Your task to perform on an android device: Open Google Maps and go to "Timeline" Image 0: 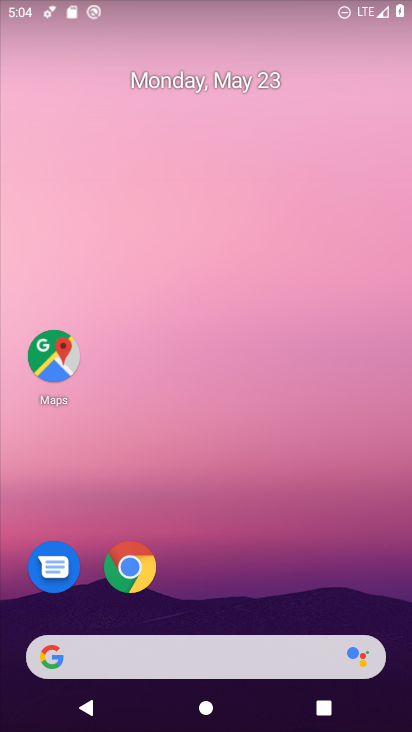
Step 0: click (51, 356)
Your task to perform on an android device: Open Google Maps and go to "Timeline" Image 1: 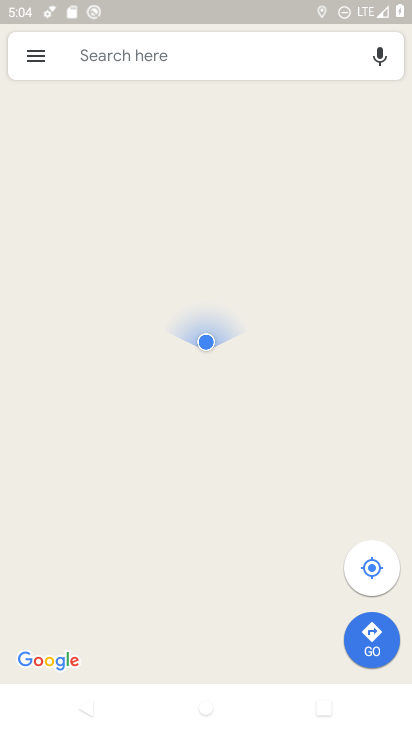
Step 1: click (32, 60)
Your task to perform on an android device: Open Google Maps and go to "Timeline" Image 2: 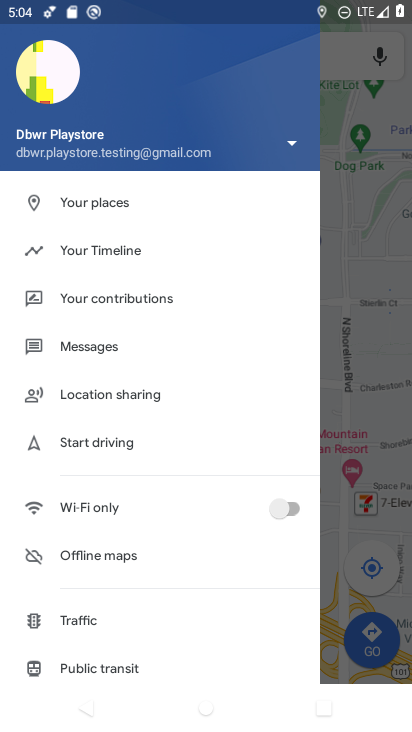
Step 2: click (104, 254)
Your task to perform on an android device: Open Google Maps and go to "Timeline" Image 3: 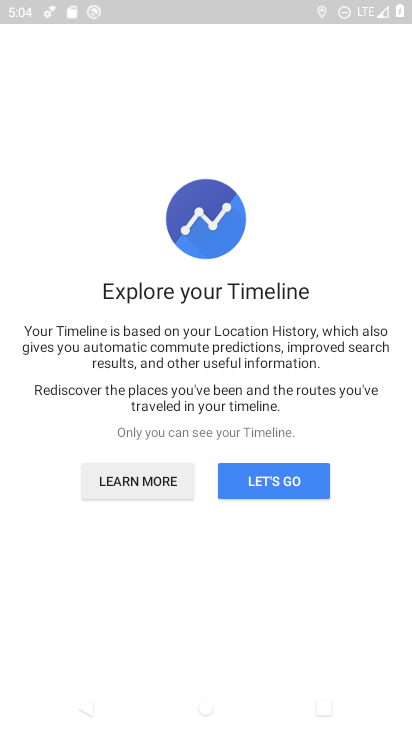
Step 3: click (259, 476)
Your task to perform on an android device: Open Google Maps and go to "Timeline" Image 4: 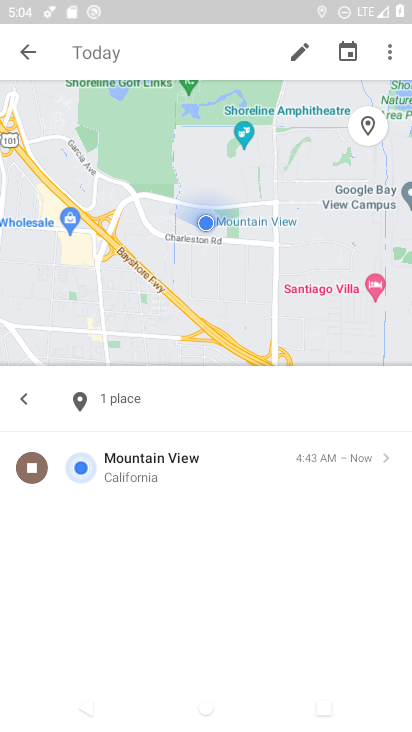
Step 4: task complete